Your task to perform on an android device: read, delete, or share a saved page in the chrome app Image 0: 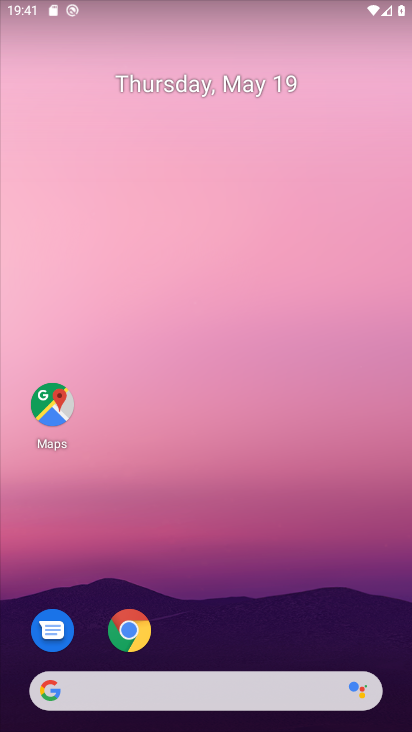
Step 0: drag from (33, 564) to (301, 154)
Your task to perform on an android device: read, delete, or share a saved page in the chrome app Image 1: 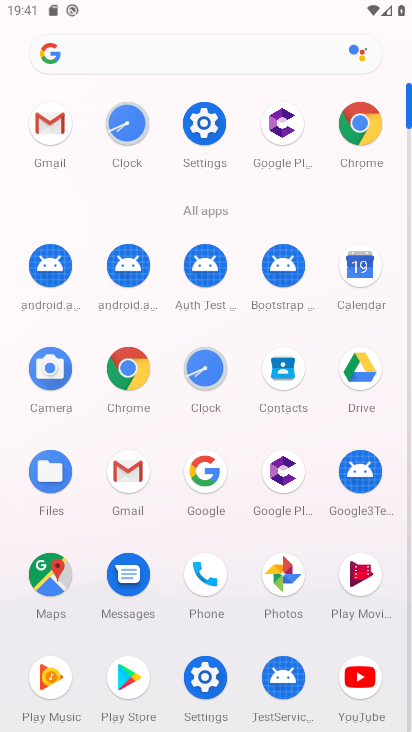
Step 1: click (136, 370)
Your task to perform on an android device: read, delete, or share a saved page in the chrome app Image 2: 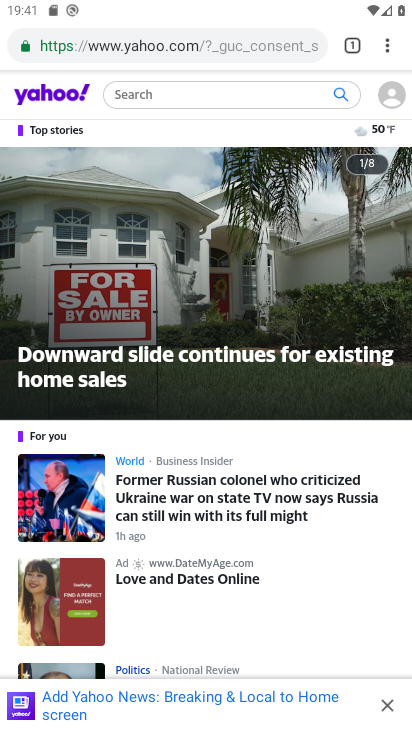
Step 2: click (344, 40)
Your task to perform on an android device: read, delete, or share a saved page in the chrome app Image 3: 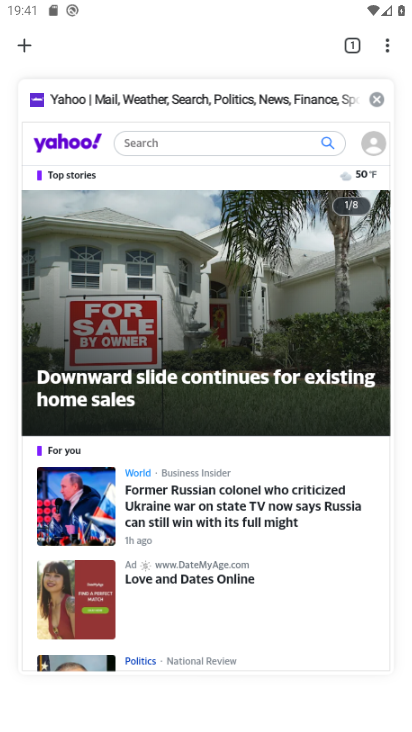
Step 3: click (27, 41)
Your task to perform on an android device: read, delete, or share a saved page in the chrome app Image 4: 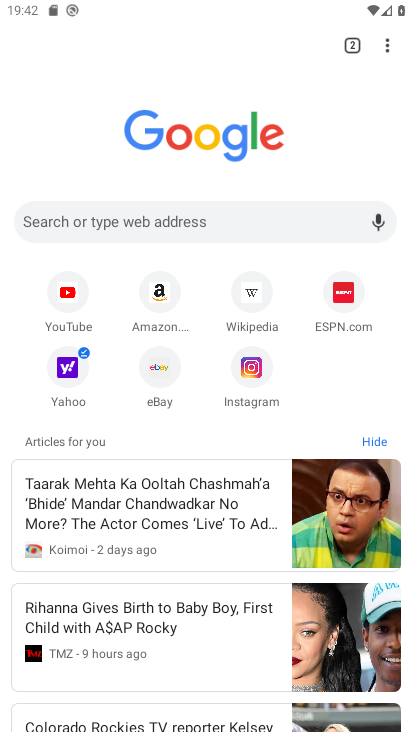
Step 4: click (61, 302)
Your task to perform on an android device: read, delete, or share a saved page in the chrome app Image 5: 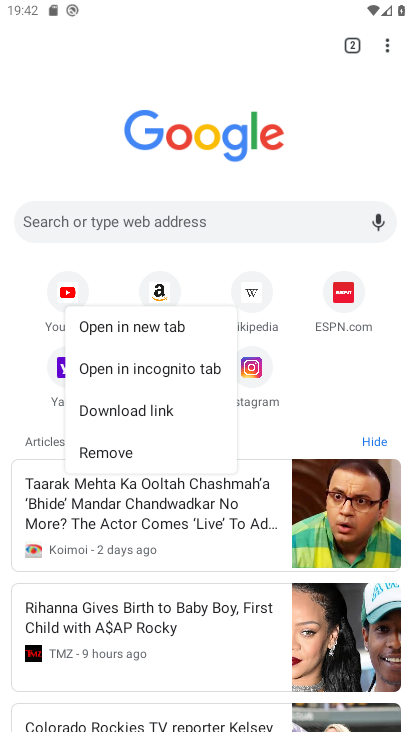
Step 5: click (117, 450)
Your task to perform on an android device: read, delete, or share a saved page in the chrome app Image 6: 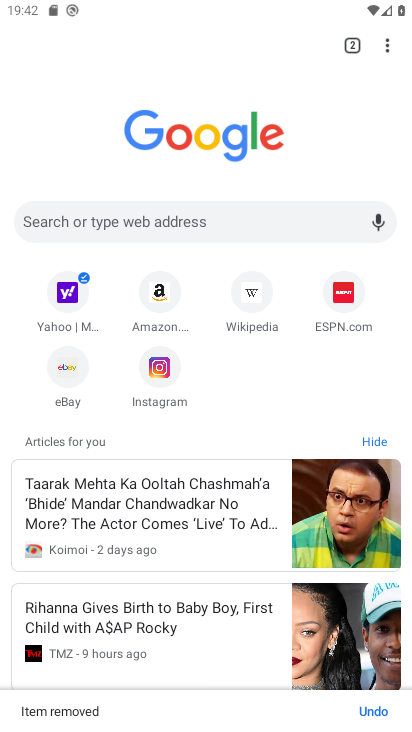
Step 6: task complete